Your task to perform on an android device: What's on my calendar today? Image 0: 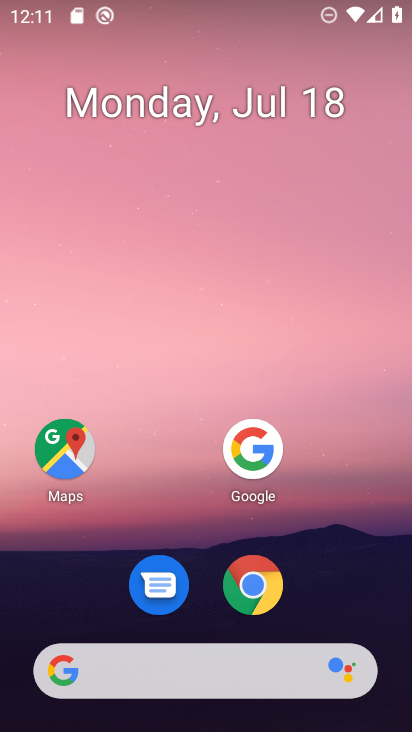
Step 0: drag from (195, 672) to (332, 106)
Your task to perform on an android device: What's on my calendar today? Image 1: 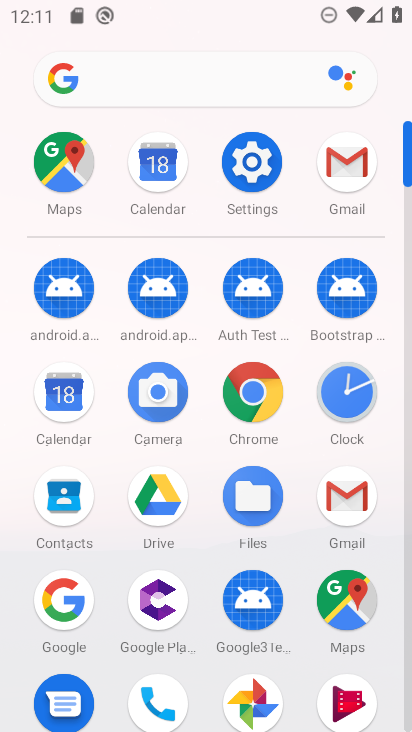
Step 1: click (68, 406)
Your task to perform on an android device: What's on my calendar today? Image 2: 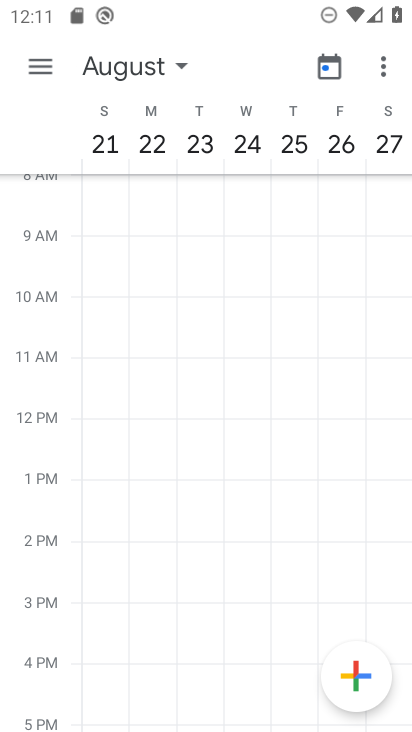
Step 2: click (122, 59)
Your task to perform on an android device: What's on my calendar today? Image 3: 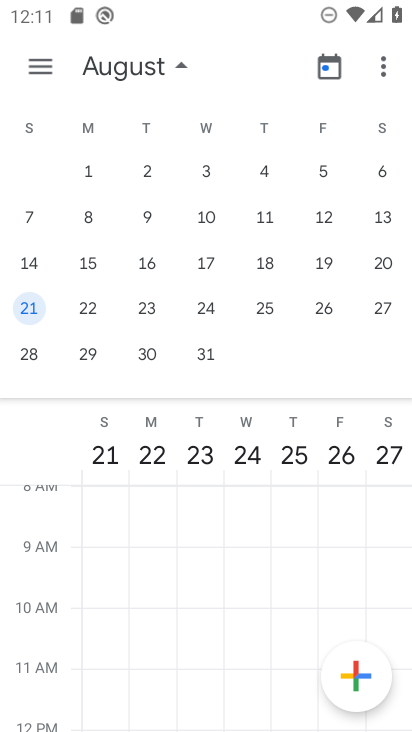
Step 3: drag from (50, 203) to (356, 275)
Your task to perform on an android device: What's on my calendar today? Image 4: 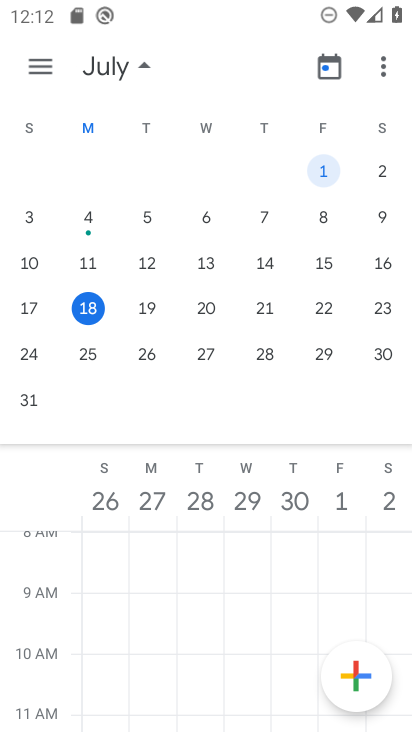
Step 4: click (93, 314)
Your task to perform on an android device: What's on my calendar today? Image 5: 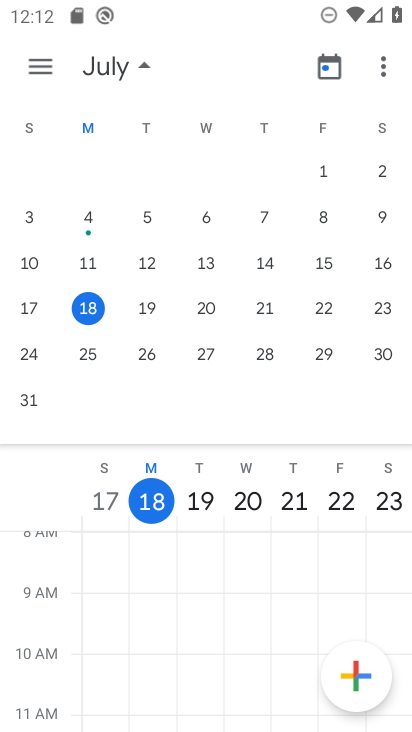
Step 5: click (31, 77)
Your task to perform on an android device: What's on my calendar today? Image 6: 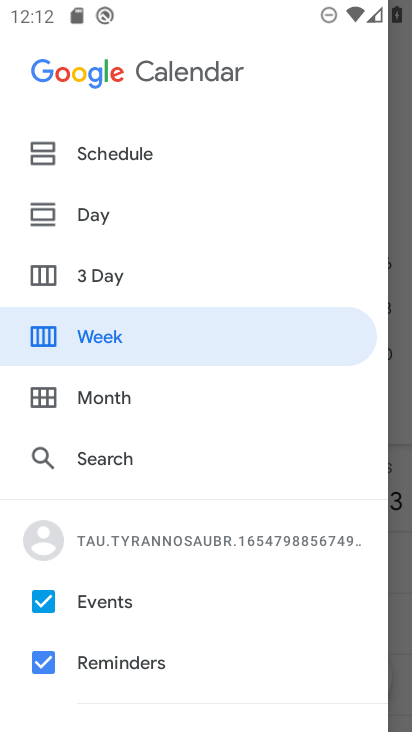
Step 6: click (103, 215)
Your task to perform on an android device: What's on my calendar today? Image 7: 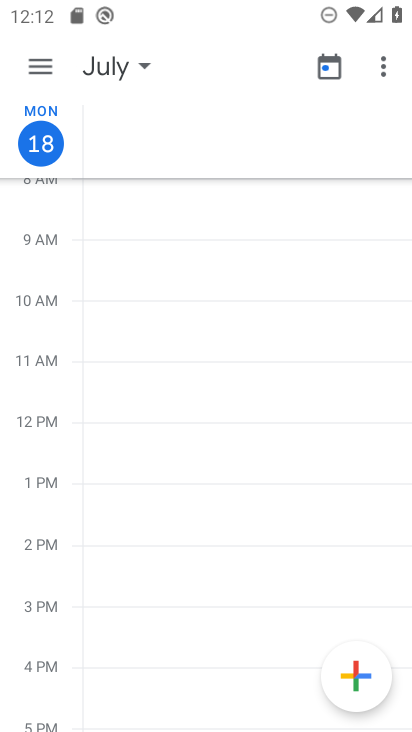
Step 7: click (51, 73)
Your task to perform on an android device: What's on my calendar today? Image 8: 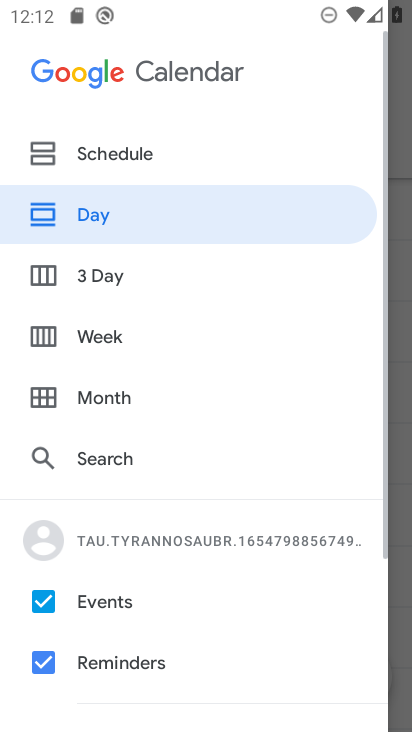
Step 8: click (113, 158)
Your task to perform on an android device: What's on my calendar today? Image 9: 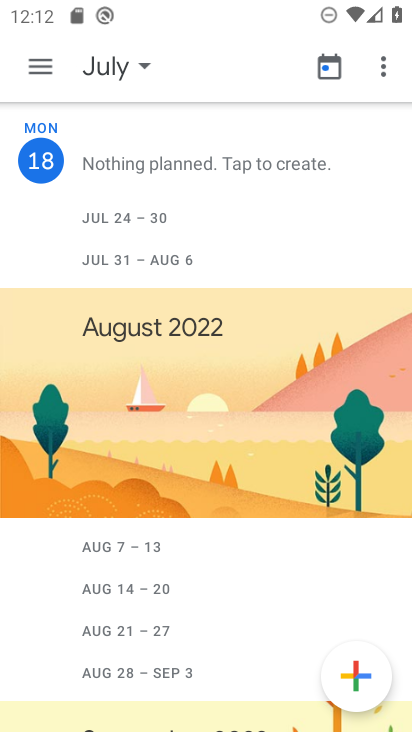
Step 9: task complete